Your task to perform on an android device: clear all cookies in the chrome app Image 0: 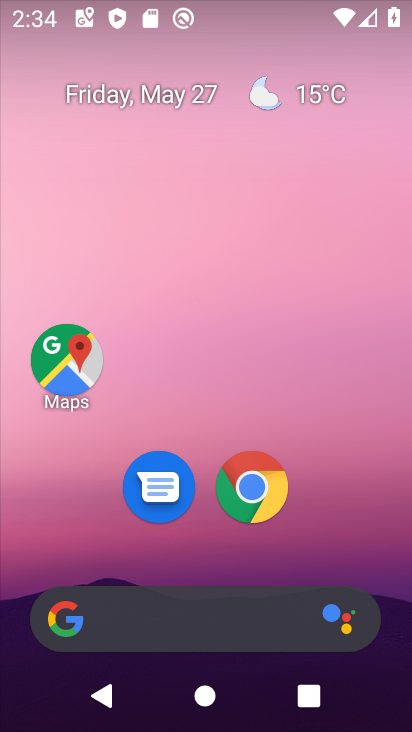
Step 0: click (247, 486)
Your task to perform on an android device: clear all cookies in the chrome app Image 1: 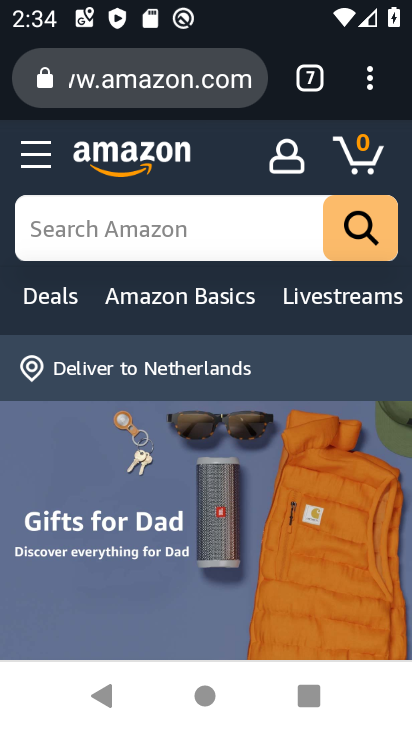
Step 1: click (386, 84)
Your task to perform on an android device: clear all cookies in the chrome app Image 2: 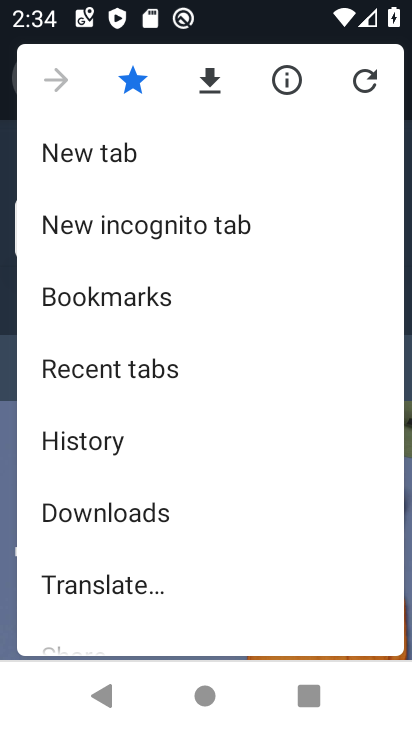
Step 2: click (132, 450)
Your task to perform on an android device: clear all cookies in the chrome app Image 3: 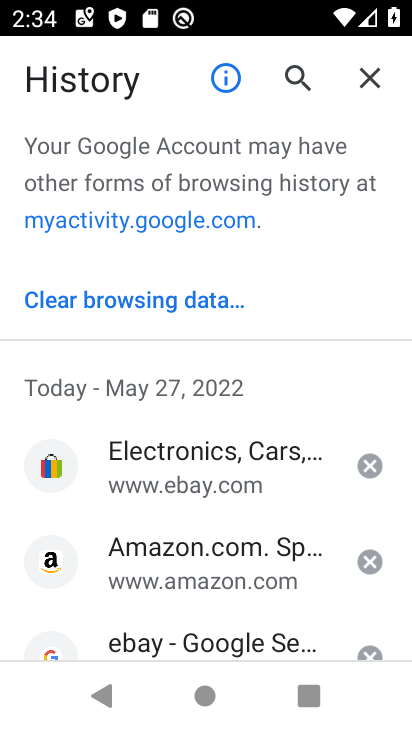
Step 3: click (179, 317)
Your task to perform on an android device: clear all cookies in the chrome app Image 4: 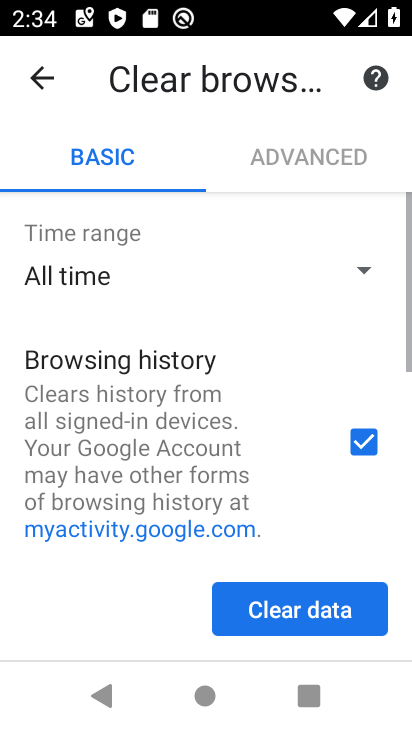
Step 4: drag from (142, 451) to (189, 76)
Your task to perform on an android device: clear all cookies in the chrome app Image 5: 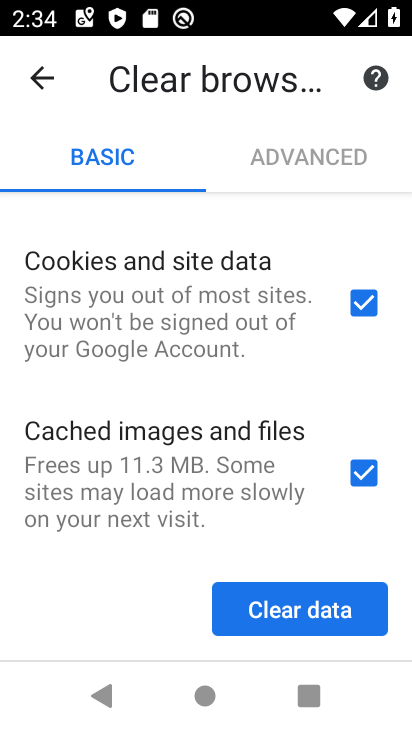
Step 5: click (360, 466)
Your task to perform on an android device: clear all cookies in the chrome app Image 6: 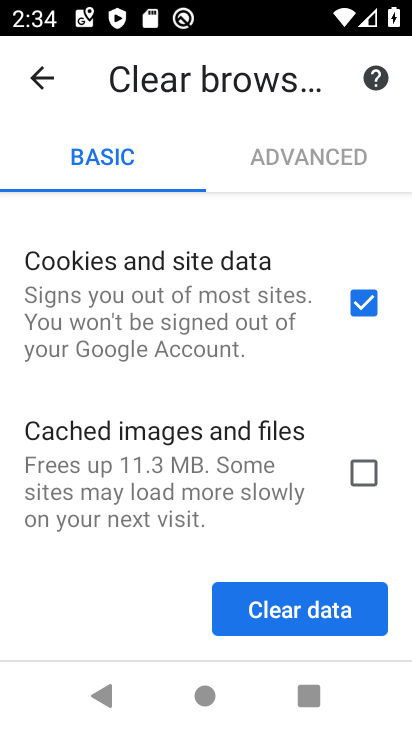
Step 6: drag from (218, 221) to (164, 571)
Your task to perform on an android device: clear all cookies in the chrome app Image 7: 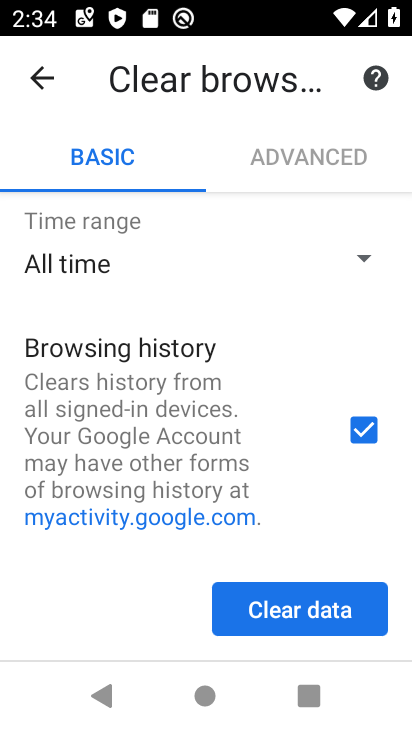
Step 7: click (375, 436)
Your task to perform on an android device: clear all cookies in the chrome app Image 8: 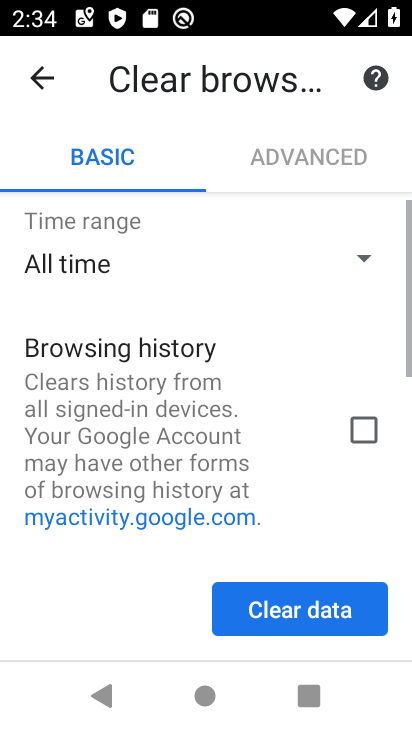
Step 8: click (312, 638)
Your task to perform on an android device: clear all cookies in the chrome app Image 9: 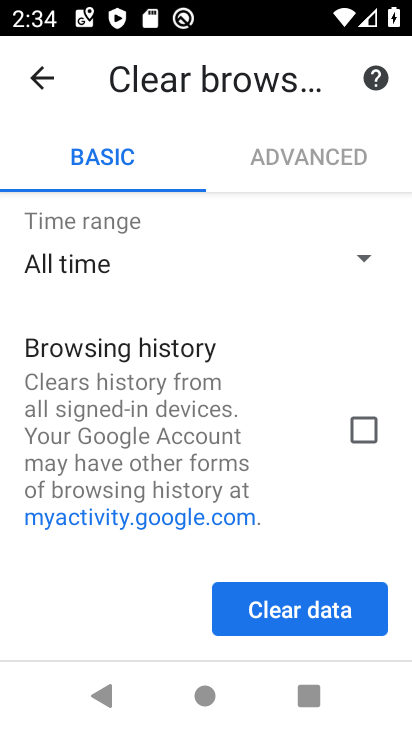
Step 9: click (289, 622)
Your task to perform on an android device: clear all cookies in the chrome app Image 10: 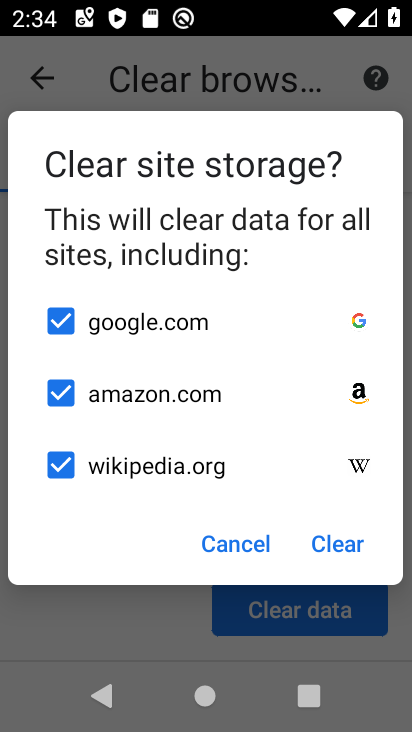
Step 10: click (339, 541)
Your task to perform on an android device: clear all cookies in the chrome app Image 11: 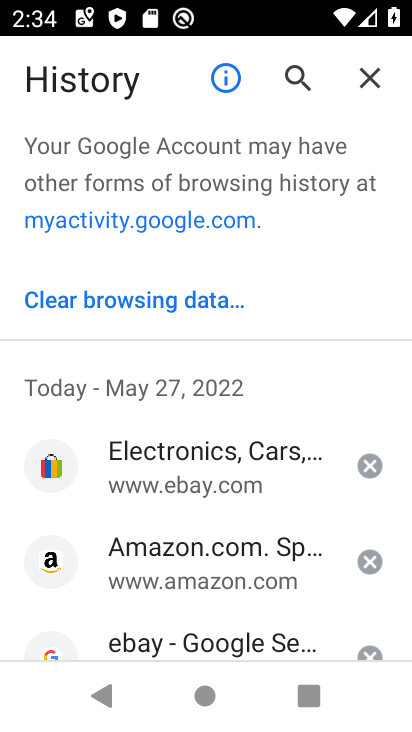
Step 11: task complete